Your task to perform on an android device: open a new tab in the chrome app Image 0: 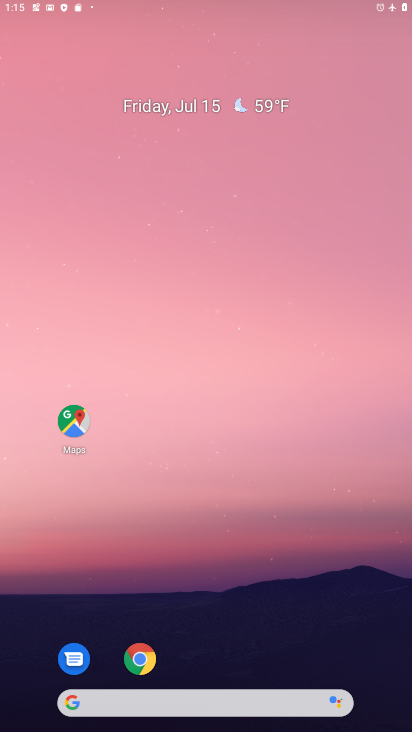
Step 0: click (143, 661)
Your task to perform on an android device: open a new tab in the chrome app Image 1: 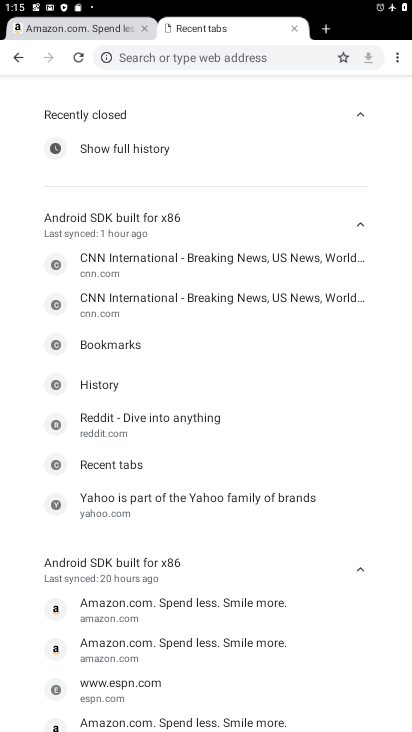
Step 1: click (402, 67)
Your task to perform on an android device: open a new tab in the chrome app Image 2: 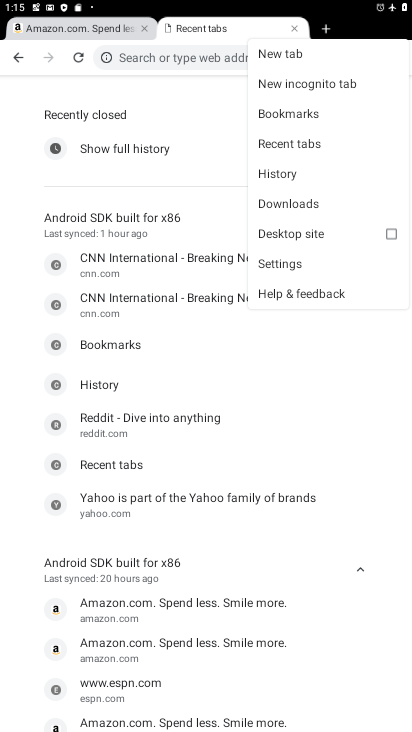
Step 2: click (281, 53)
Your task to perform on an android device: open a new tab in the chrome app Image 3: 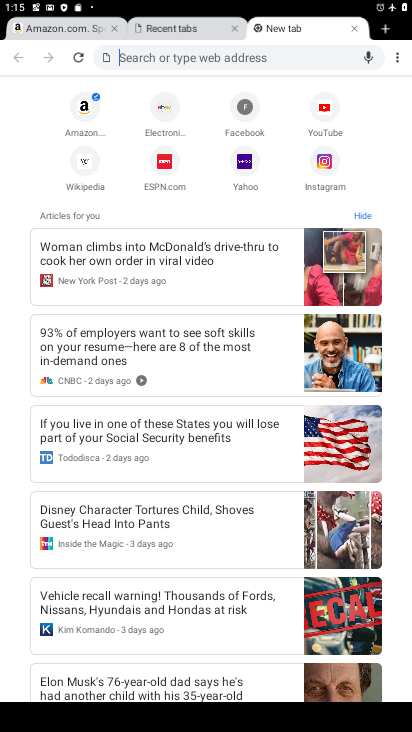
Step 3: task complete